Your task to perform on an android device: toggle pop-ups in chrome Image 0: 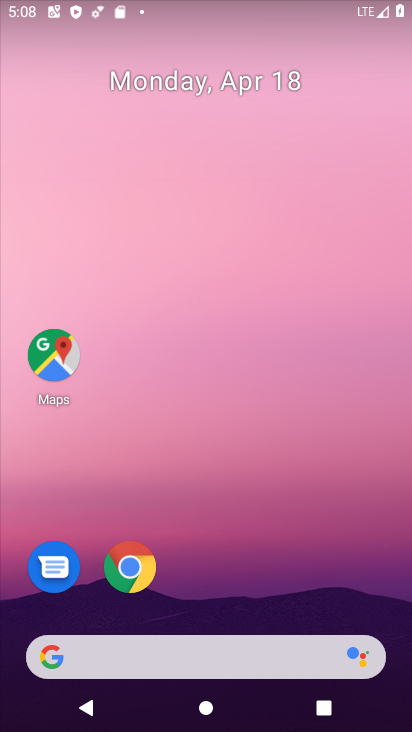
Step 0: drag from (350, 473) to (289, 29)
Your task to perform on an android device: toggle pop-ups in chrome Image 1: 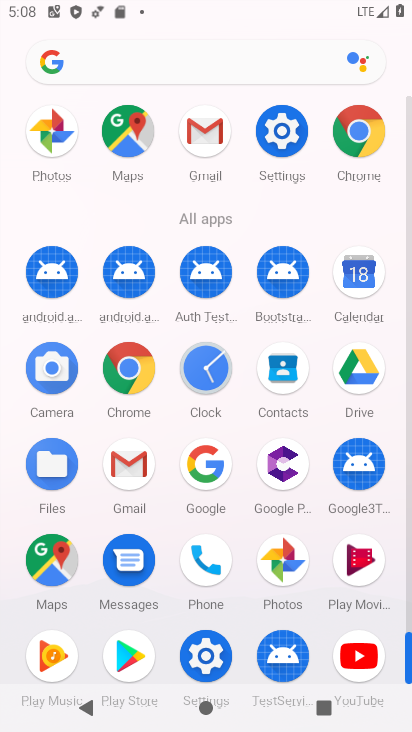
Step 1: click (355, 129)
Your task to perform on an android device: toggle pop-ups in chrome Image 2: 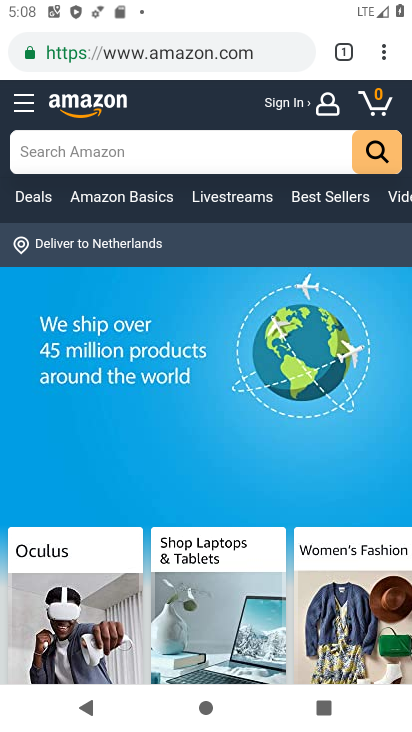
Step 2: click (385, 50)
Your task to perform on an android device: toggle pop-ups in chrome Image 3: 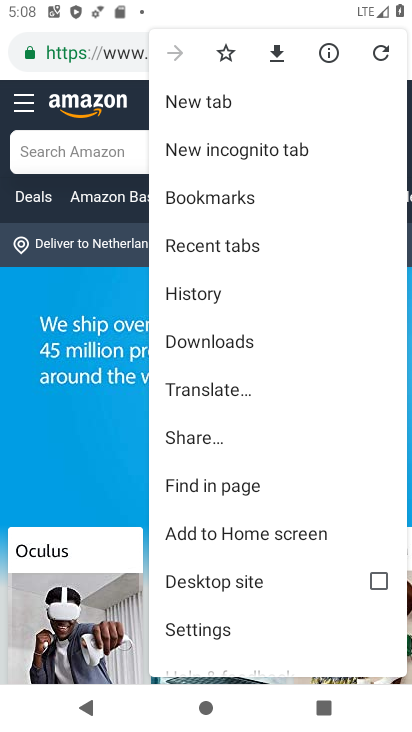
Step 3: drag from (270, 416) to (262, 145)
Your task to perform on an android device: toggle pop-ups in chrome Image 4: 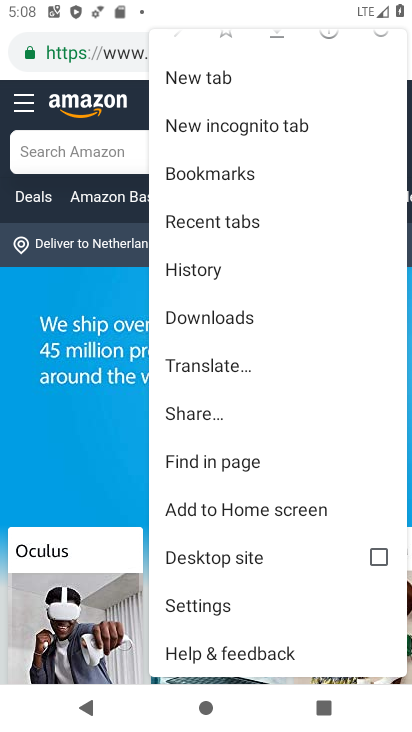
Step 4: click (221, 601)
Your task to perform on an android device: toggle pop-ups in chrome Image 5: 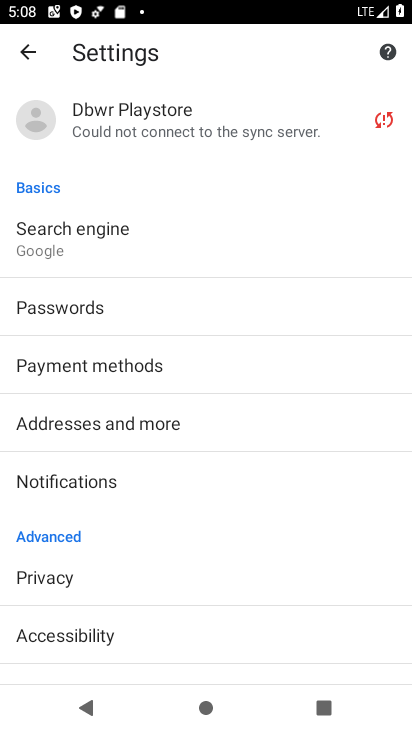
Step 5: drag from (169, 490) to (171, 161)
Your task to perform on an android device: toggle pop-ups in chrome Image 6: 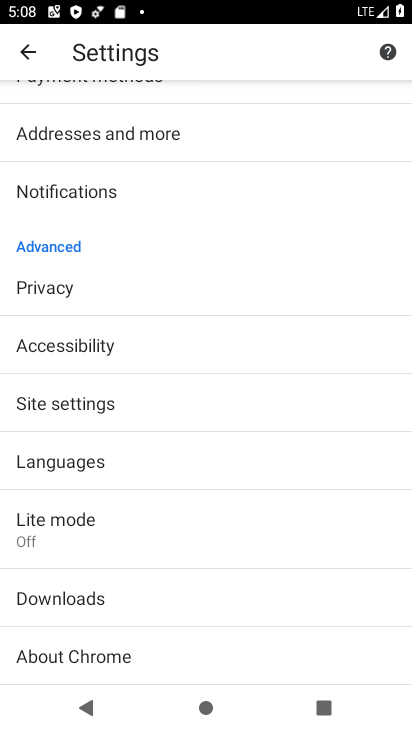
Step 6: click (93, 393)
Your task to perform on an android device: toggle pop-ups in chrome Image 7: 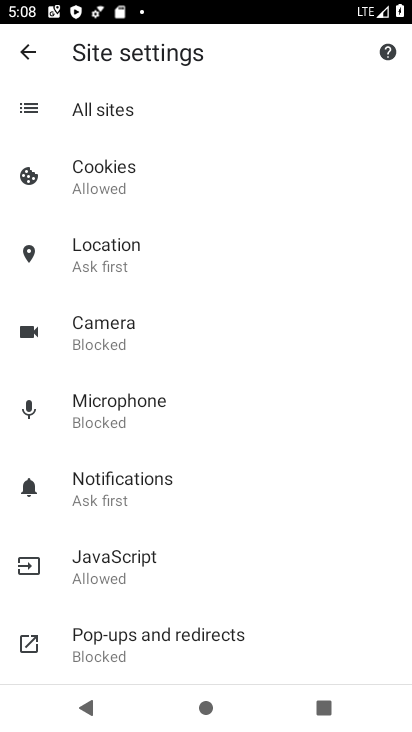
Step 7: drag from (162, 507) to (182, 237)
Your task to perform on an android device: toggle pop-ups in chrome Image 8: 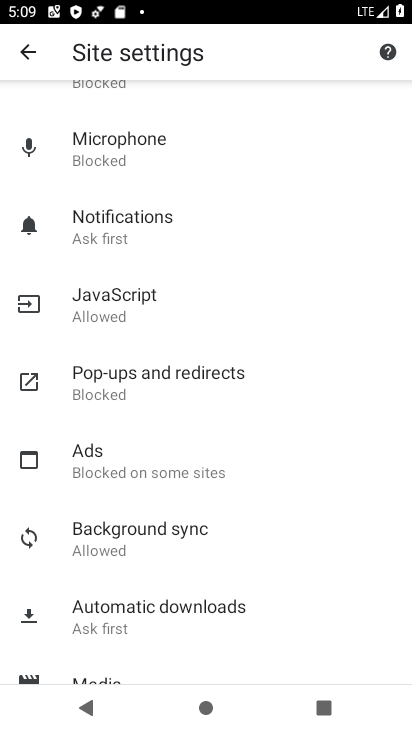
Step 8: click (145, 396)
Your task to perform on an android device: toggle pop-ups in chrome Image 9: 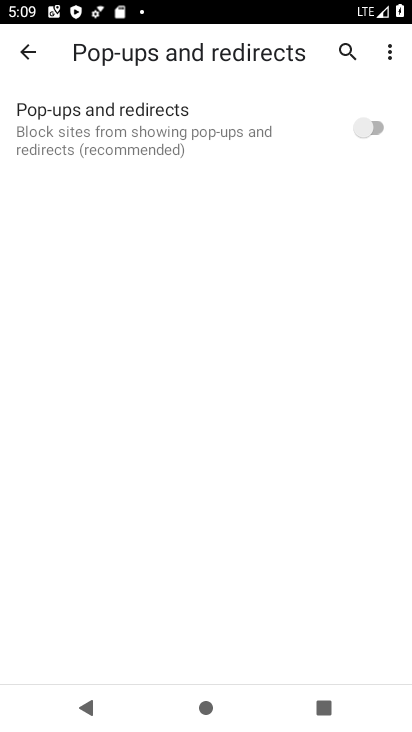
Step 9: click (378, 127)
Your task to perform on an android device: toggle pop-ups in chrome Image 10: 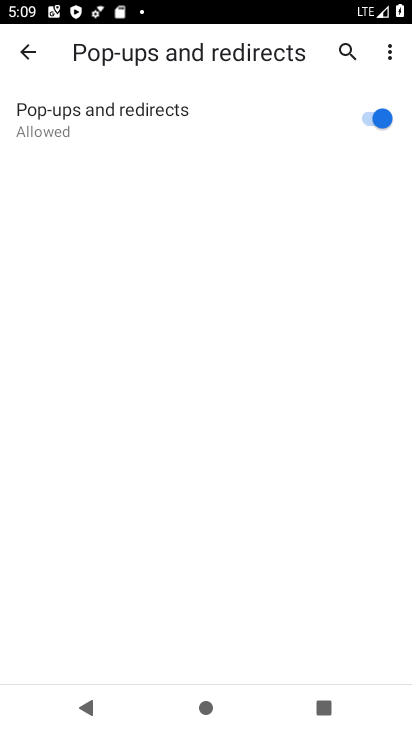
Step 10: task complete